Your task to perform on an android device: change text size in settings app Image 0: 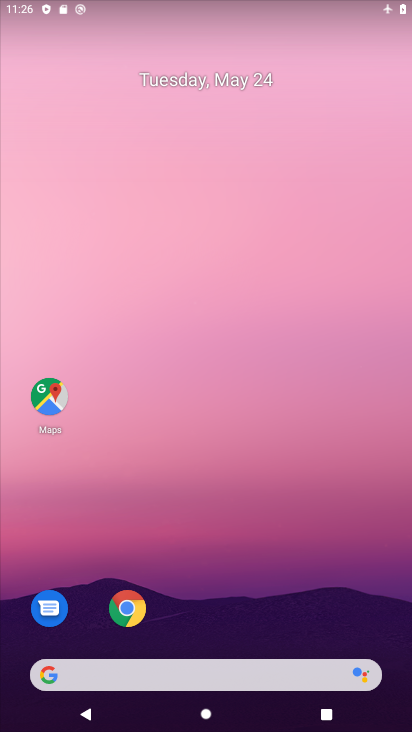
Step 0: drag from (232, 548) to (184, 290)
Your task to perform on an android device: change text size in settings app Image 1: 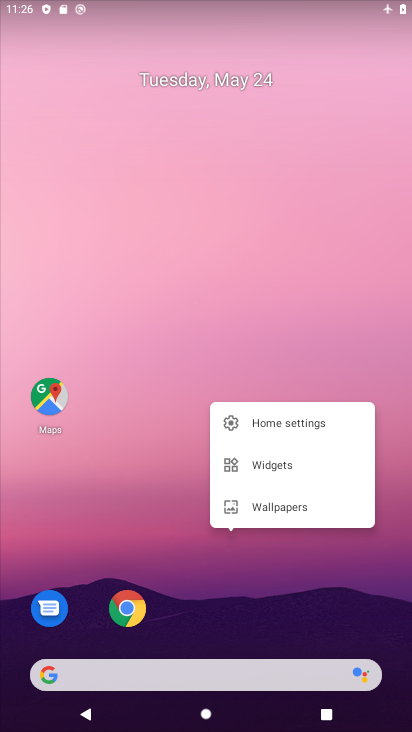
Step 1: click (142, 376)
Your task to perform on an android device: change text size in settings app Image 2: 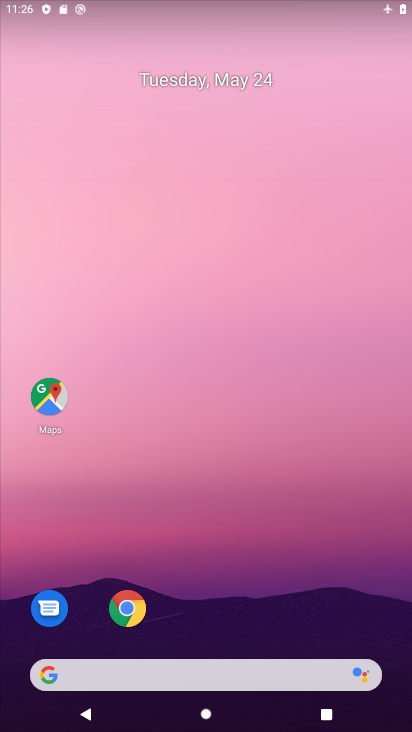
Step 2: drag from (285, 620) to (219, 36)
Your task to perform on an android device: change text size in settings app Image 3: 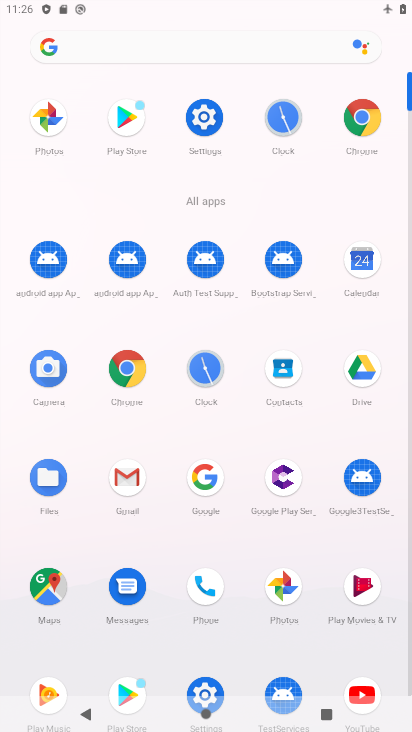
Step 3: click (221, 115)
Your task to perform on an android device: change text size in settings app Image 4: 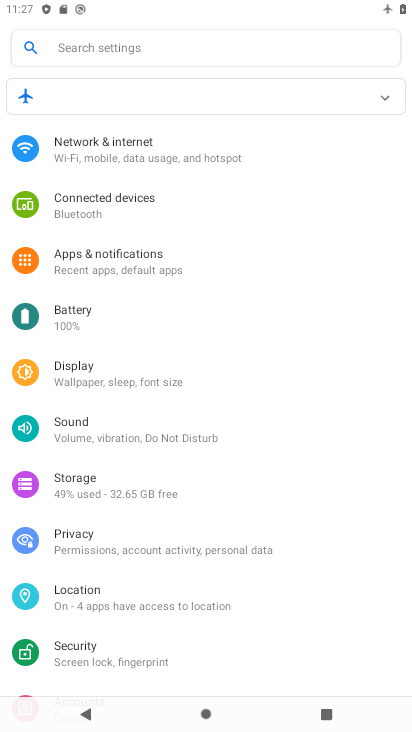
Step 4: click (145, 391)
Your task to perform on an android device: change text size in settings app Image 5: 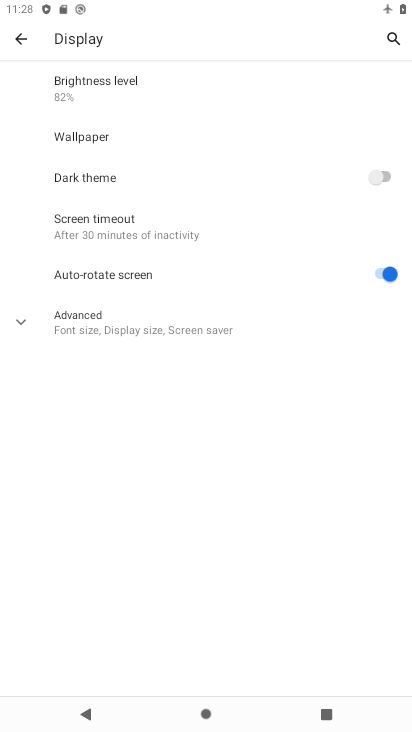
Step 5: task complete